Your task to perform on an android device: Go to Android settings Image 0: 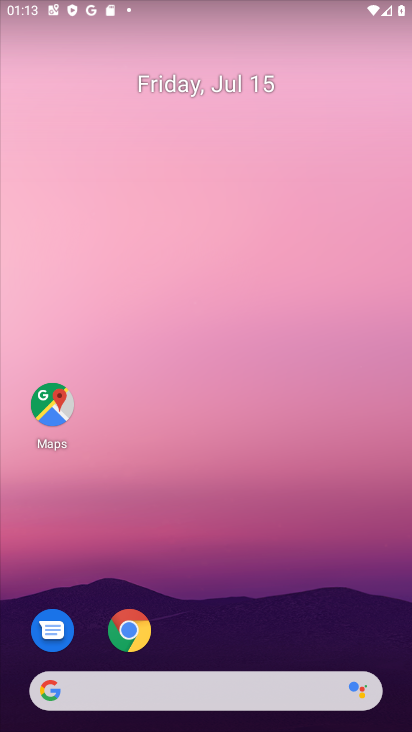
Step 0: drag from (249, 640) to (250, 99)
Your task to perform on an android device: Go to Android settings Image 1: 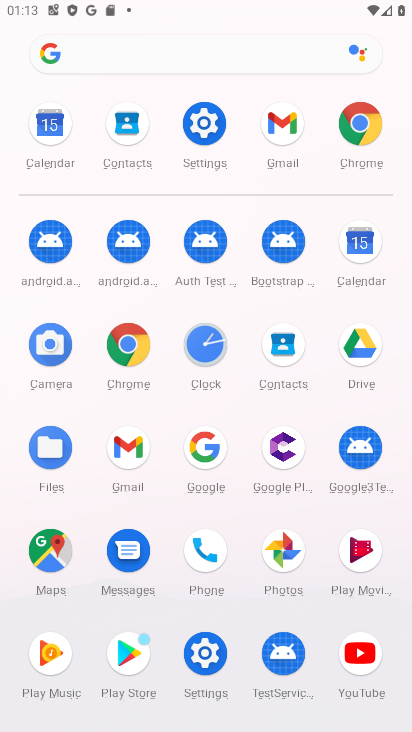
Step 1: click (209, 129)
Your task to perform on an android device: Go to Android settings Image 2: 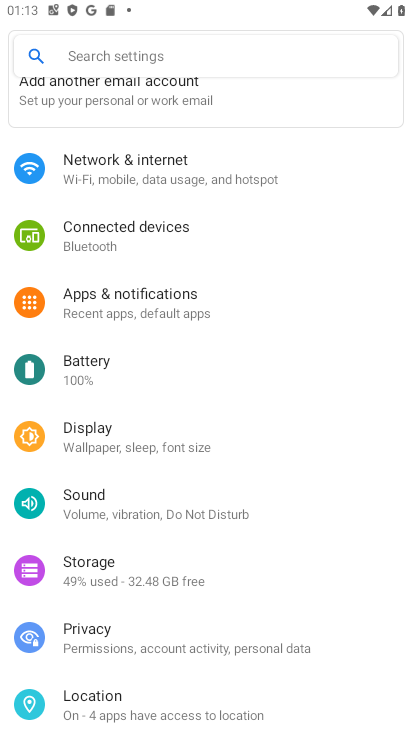
Step 2: drag from (251, 483) to (231, 154)
Your task to perform on an android device: Go to Android settings Image 3: 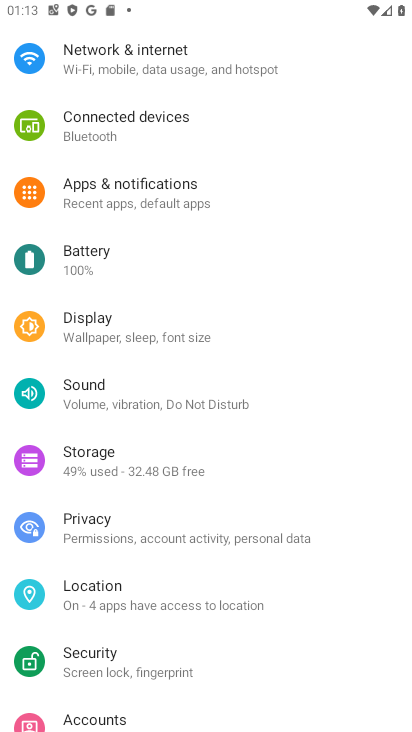
Step 3: drag from (291, 675) to (258, 74)
Your task to perform on an android device: Go to Android settings Image 4: 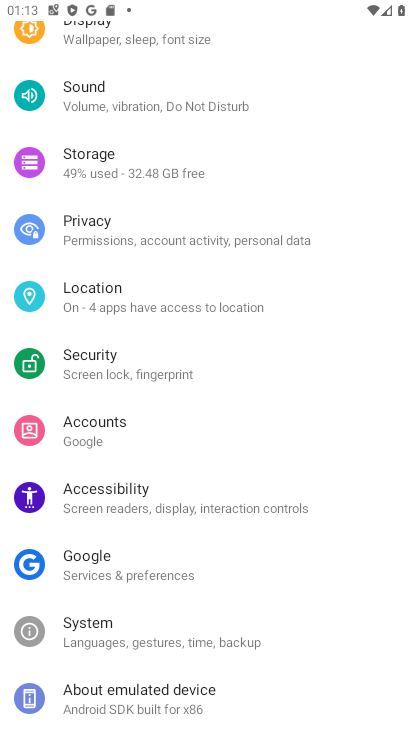
Step 4: click (270, 676)
Your task to perform on an android device: Go to Android settings Image 5: 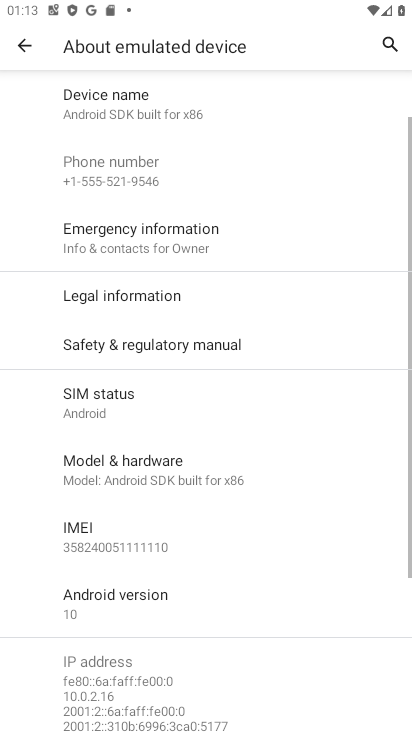
Step 5: task complete